Your task to perform on an android device: toggle pop-ups in chrome Image 0: 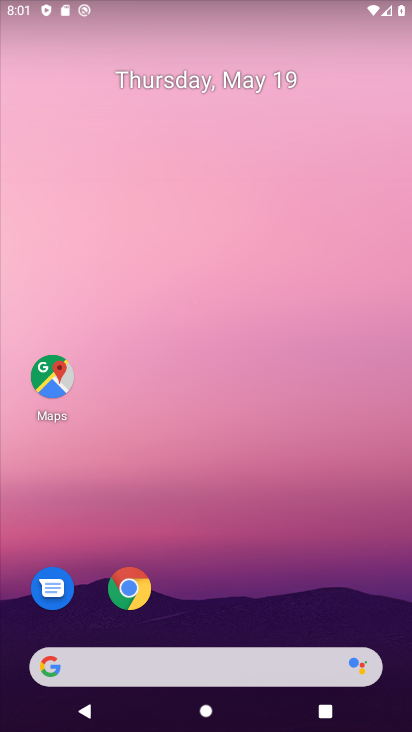
Step 0: click (120, 588)
Your task to perform on an android device: toggle pop-ups in chrome Image 1: 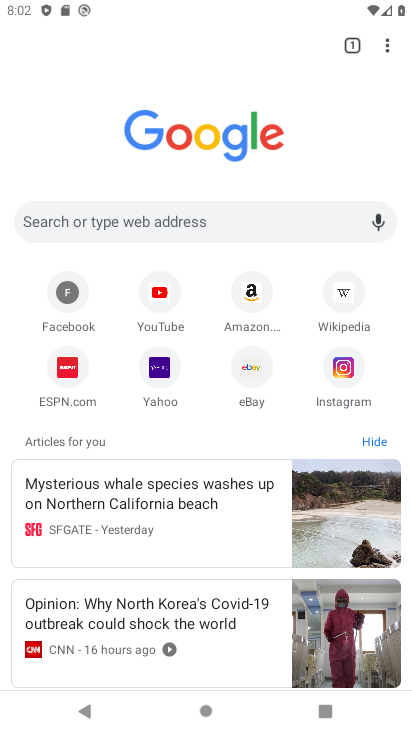
Step 1: click (386, 51)
Your task to perform on an android device: toggle pop-ups in chrome Image 2: 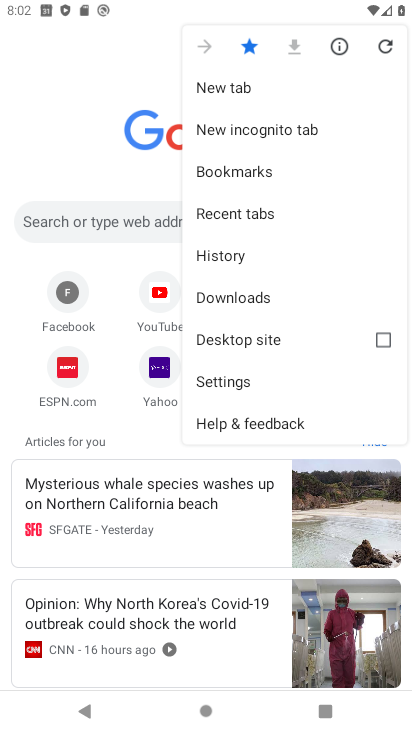
Step 2: click (236, 378)
Your task to perform on an android device: toggle pop-ups in chrome Image 3: 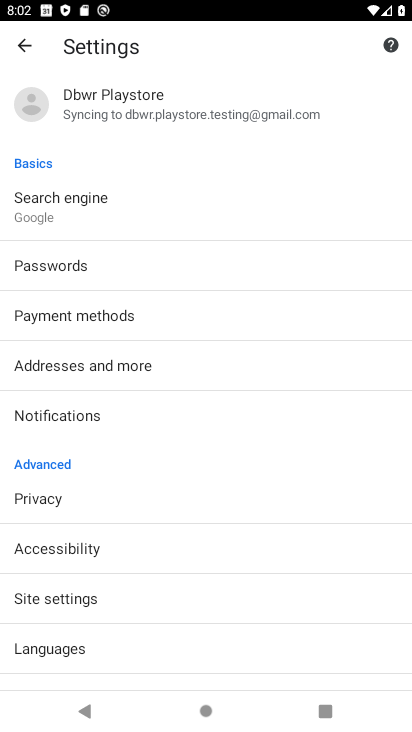
Step 3: click (86, 592)
Your task to perform on an android device: toggle pop-ups in chrome Image 4: 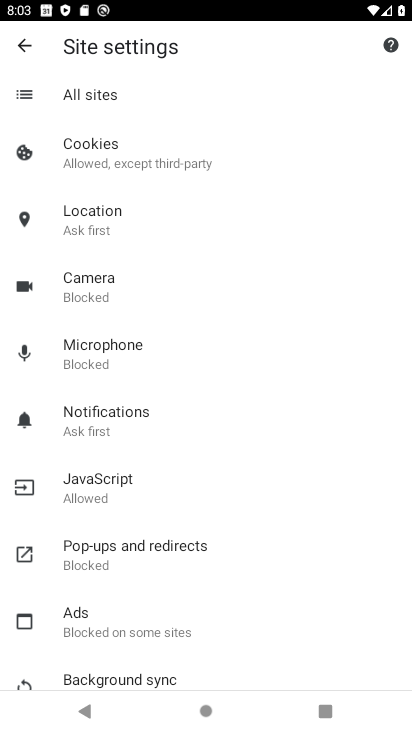
Step 4: click (109, 556)
Your task to perform on an android device: toggle pop-ups in chrome Image 5: 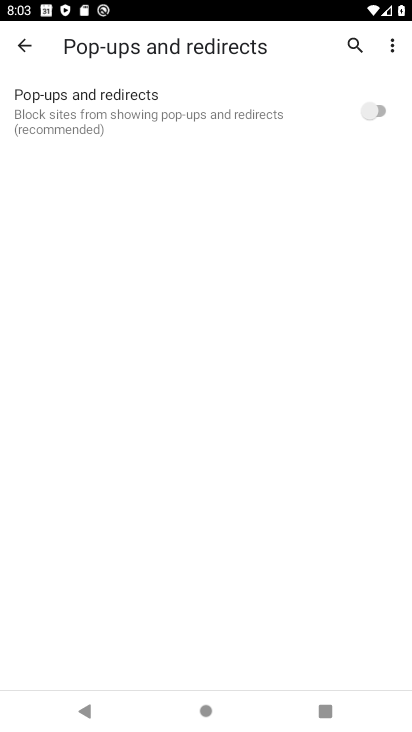
Step 5: click (379, 109)
Your task to perform on an android device: toggle pop-ups in chrome Image 6: 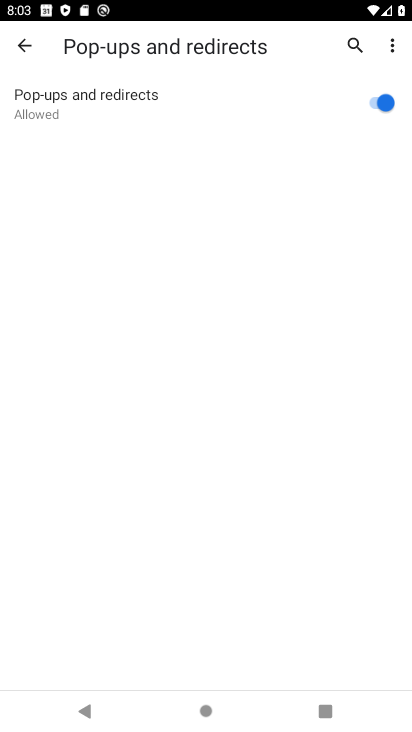
Step 6: task complete